Your task to perform on an android device: toggle improve location accuracy Image 0: 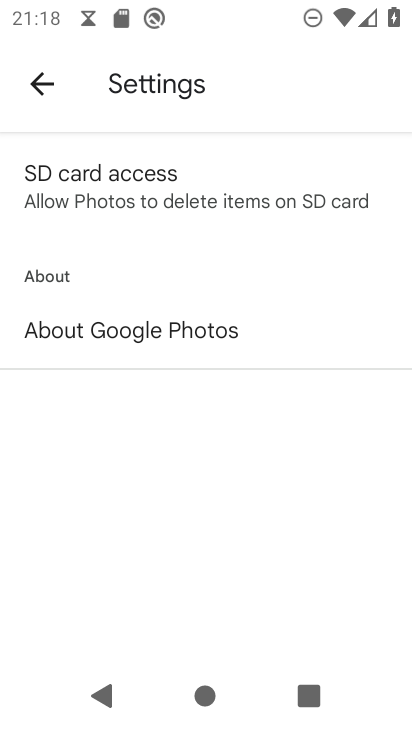
Step 0: click (258, 263)
Your task to perform on an android device: toggle improve location accuracy Image 1: 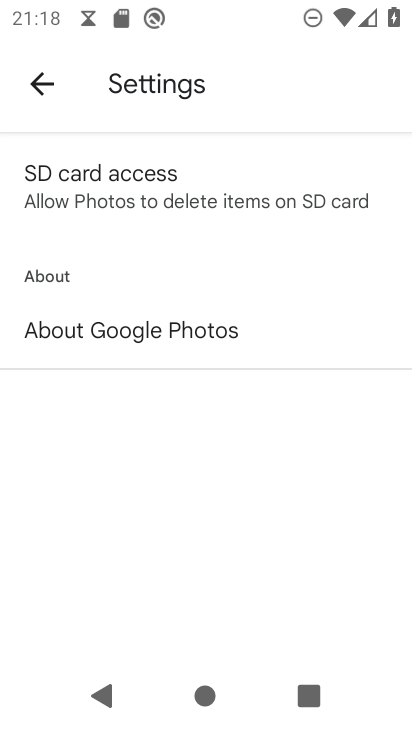
Step 1: click (36, 79)
Your task to perform on an android device: toggle improve location accuracy Image 2: 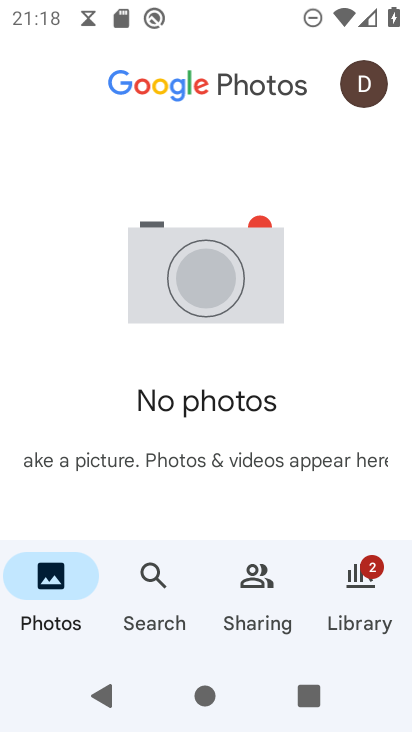
Step 2: press home button
Your task to perform on an android device: toggle improve location accuracy Image 3: 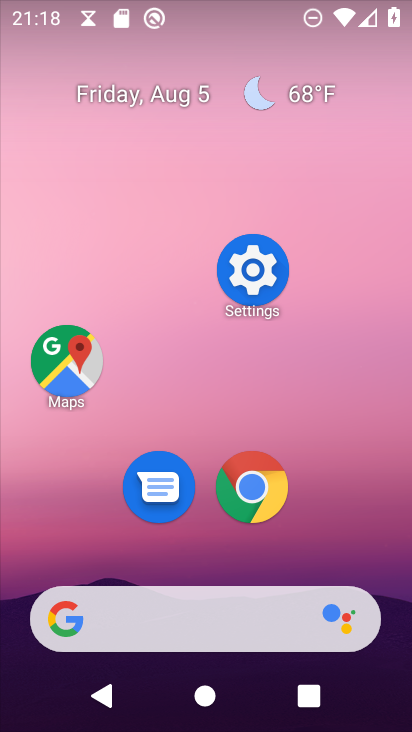
Step 3: click (236, 267)
Your task to perform on an android device: toggle improve location accuracy Image 4: 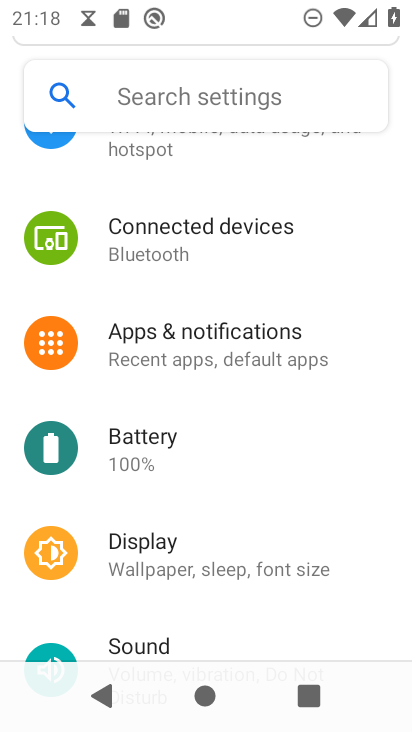
Step 4: drag from (262, 585) to (373, 108)
Your task to perform on an android device: toggle improve location accuracy Image 5: 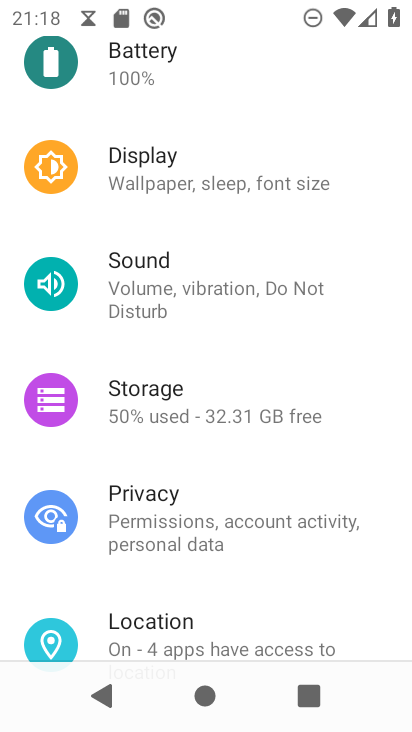
Step 5: drag from (238, 573) to (317, 230)
Your task to perform on an android device: toggle improve location accuracy Image 6: 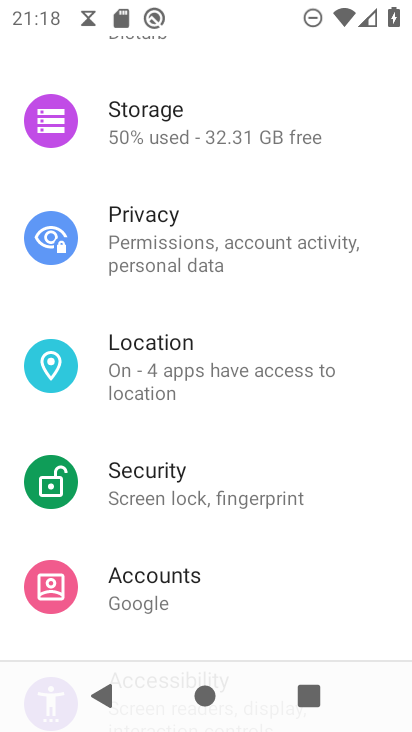
Step 6: click (169, 366)
Your task to perform on an android device: toggle improve location accuracy Image 7: 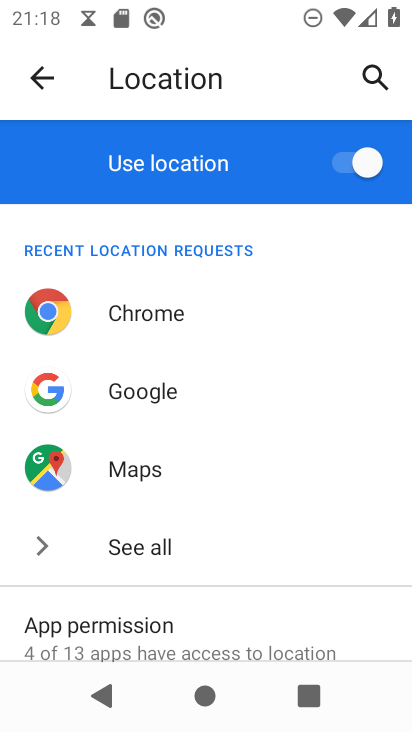
Step 7: drag from (238, 619) to (258, 227)
Your task to perform on an android device: toggle improve location accuracy Image 8: 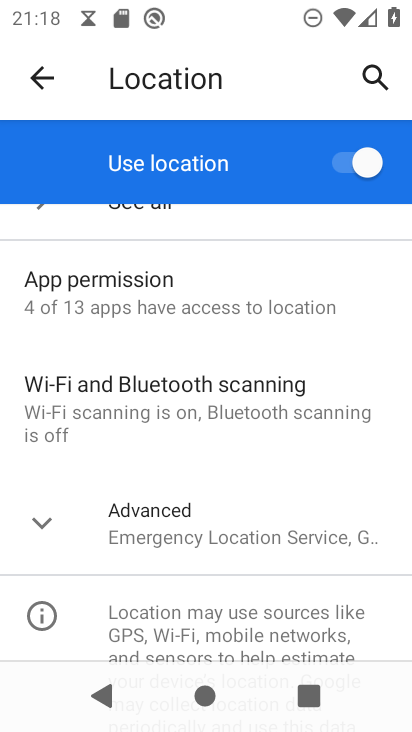
Step 8: drag from (245, 513) to (260, 109)
Your task to perform on an android device: toggle improve location accuracy Image 9: 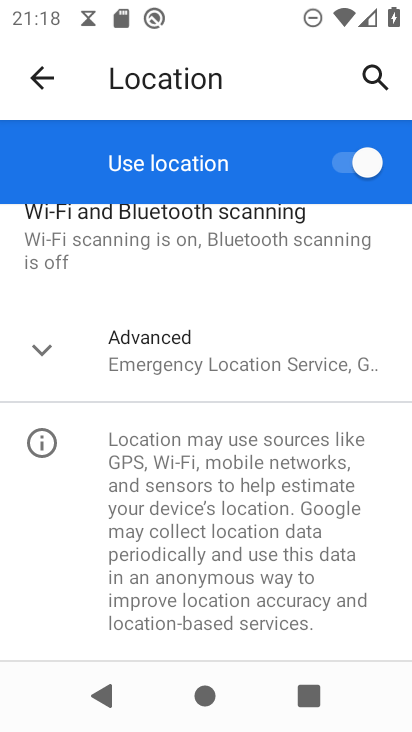
Step 9: click (118, 354)
Your task to perform on an android device: toggle improve location accuracy Image 10: 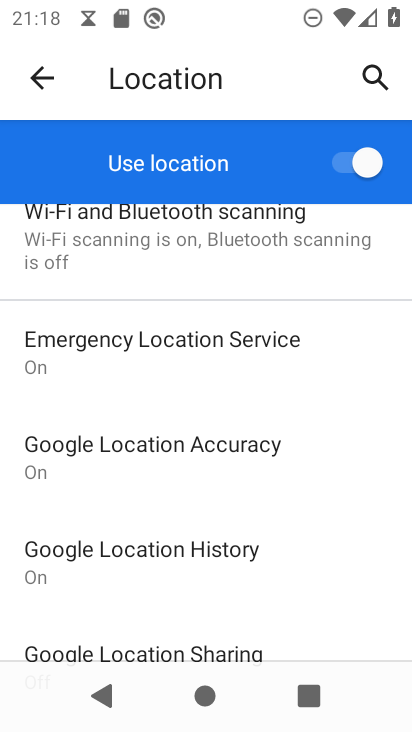
Step 10: click (202, 442)
Your task to perform on an android device: toggle improve location accuracy Image 11: 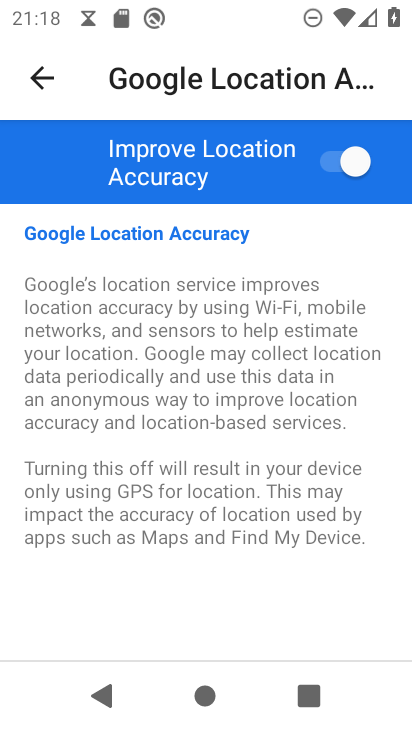
Step 11: click (330, 153)
Your task to perform on an android device: toggle improve location accuracy Image 12: 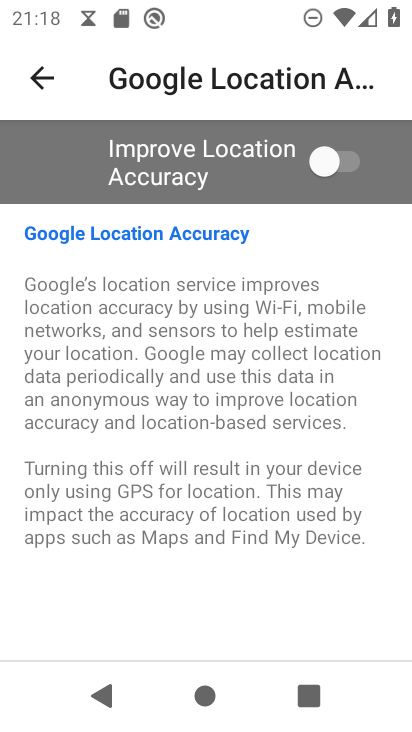
Step 12: task complete